Your task to perform on an android device: toggle airplane mode Image 0: 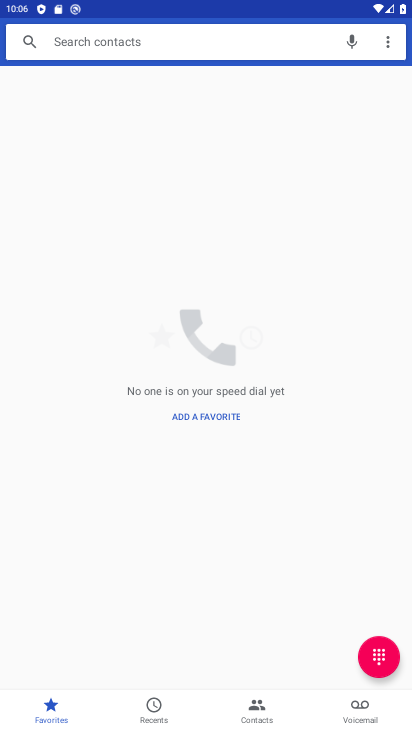
Step 0: drag from (253, 320) to (289, 193)
Your task to perform on an android device: toggle airplane mode Image 1: 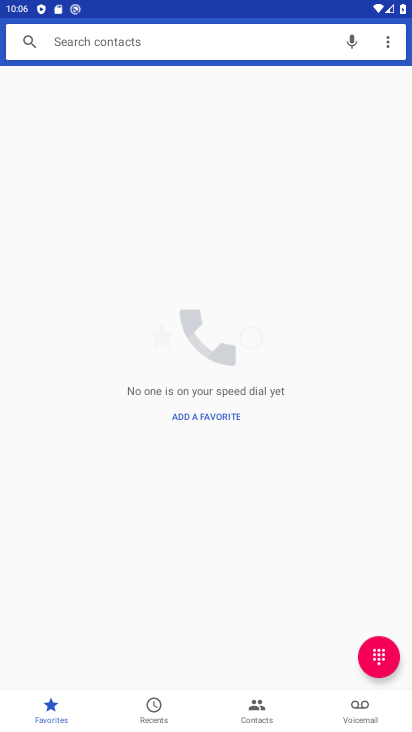
Step 1: drag from (138, 549) to (264, 228)
Your task to perform on an android device: toggle airplane mode Image 2: 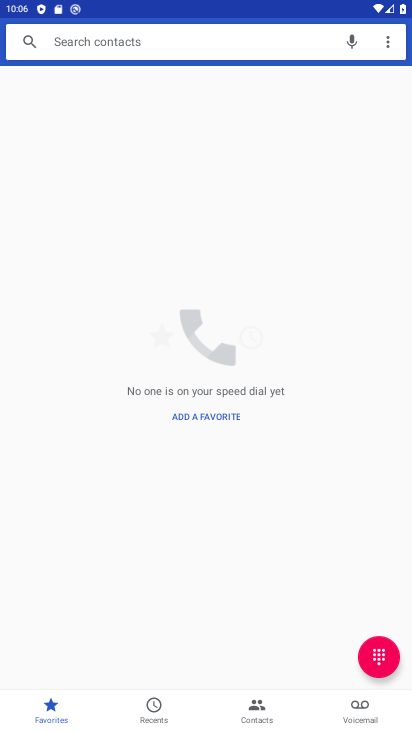
Step 2: press back button
Your task to perform on an android device: toggle airplane mode Image 3: 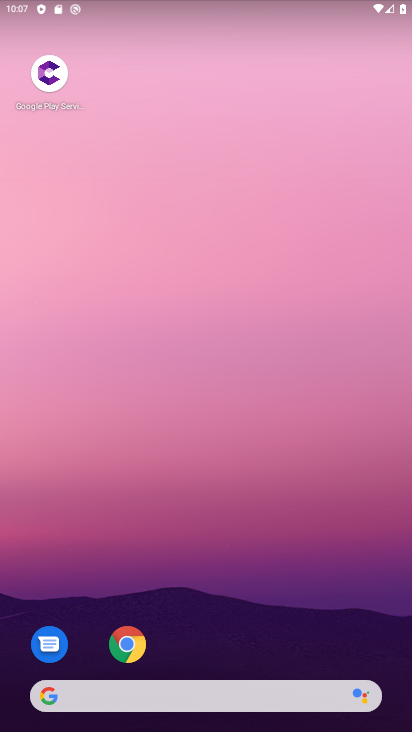
Step 3: drag from (253, 636) to (209, 232)
Your task to perform on an android device: toggle airplane mode Image 4: 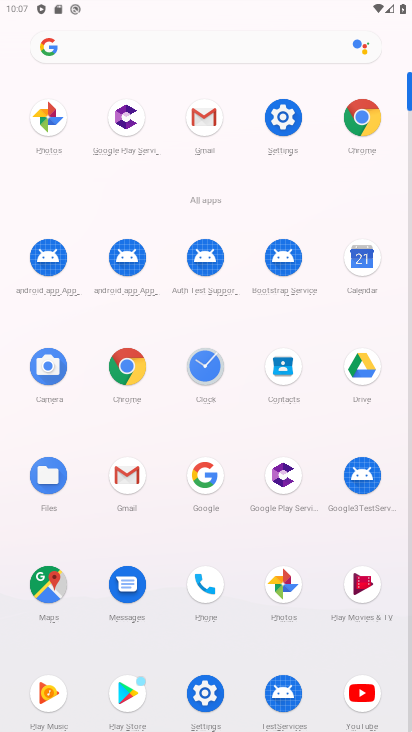
Step 4: click (283, 138)
Your task to perform on an android device: toggle airplane mode Image 5: 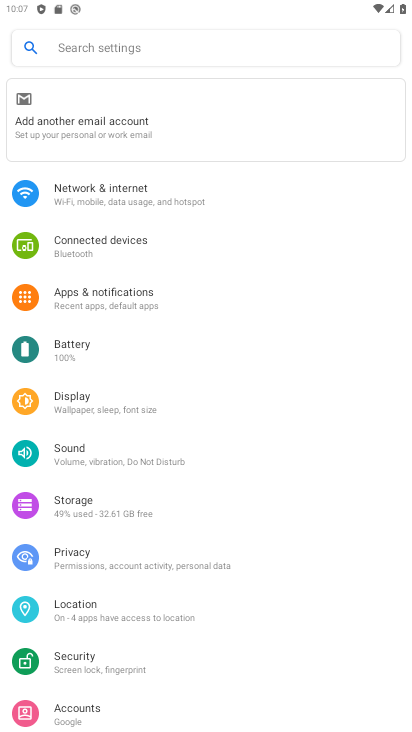
Step 5: click (93, 194)
Your task to perform on an android device: toggle airplane mode Image 6: 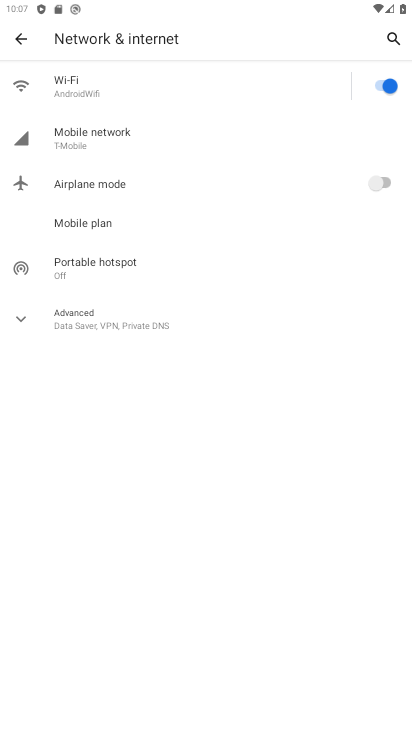
Step 6: click (390, 177)
Your task to perform on an android device: toggle airplane mode Image 7: 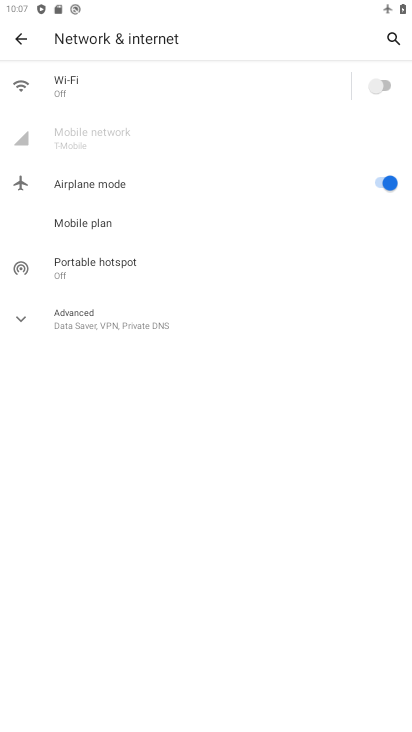
Step 7: task complete